Your task to perform on an android device: remove spam from my inbox in the gmail app Image 0: 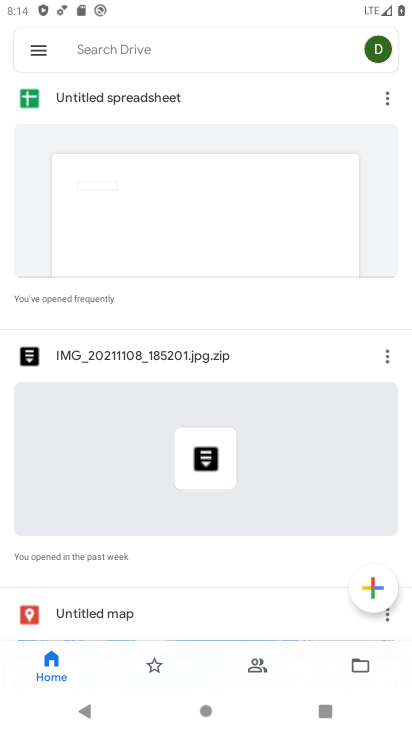
Step 0: press home button
Your task to perform on an android device: remove spam from my inbox in the gmail app Image 1: 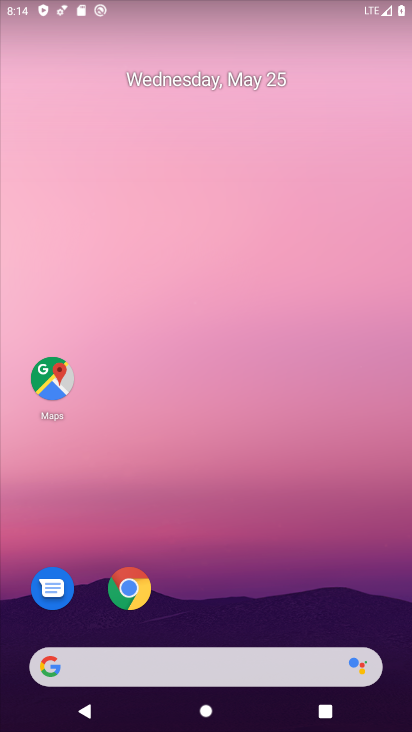
Step 1: drag from (9, 568) to (237, 164)
Your task to perform on an android device: remove spam from my inbox in the gmail app Image 2: 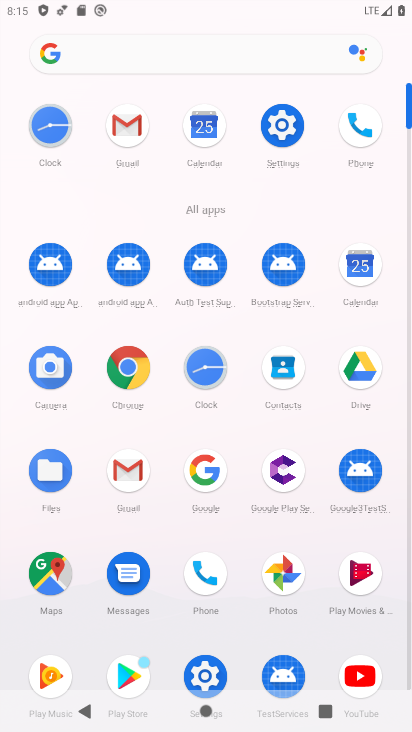
Step 2: click (117, 131)
Your task to perform on an android device: remove spam from my inbox in the gmail app Image 3: 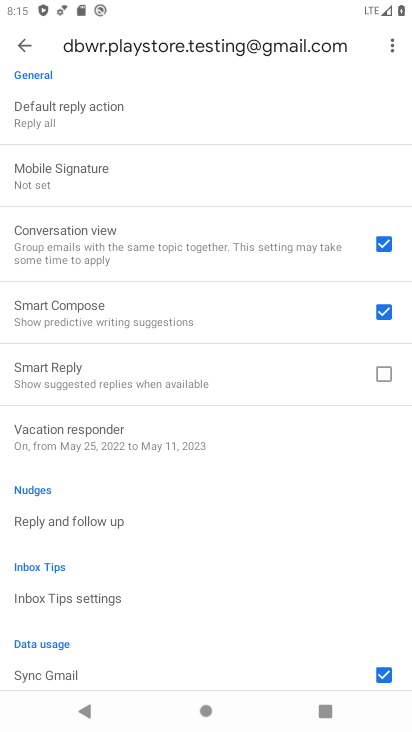
Step 3: press back button
Your task to perform on an android device: remove spam from my inbox in the gmail app Image 4: 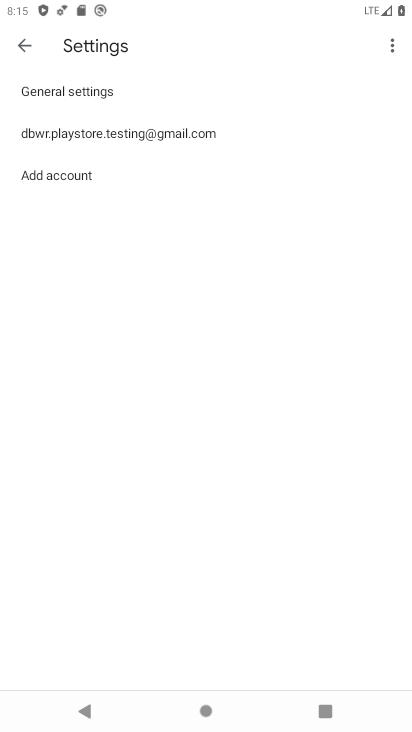
Step 4: press back button
Your task to perform on an android device: remove spam from my inbox in the gmail app Image 5: 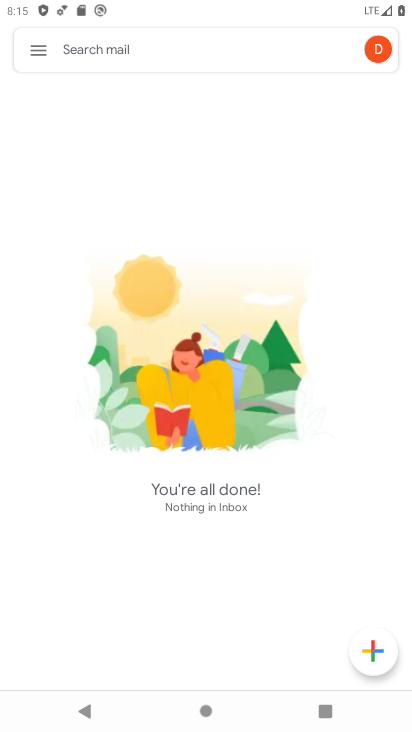
Step 5: click (32, 49)
Your task to perform on an android device: remove spam from my inbox in the gmail app Image 6: 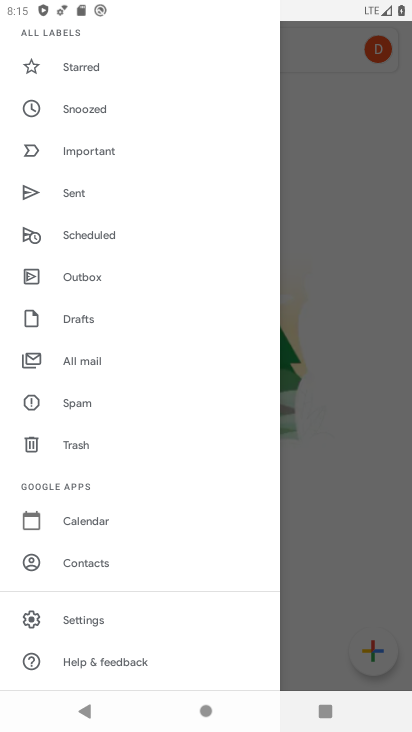
Step 6: click (96, 396)
Your task to perform on an android device: remove spam from my inbox in the gmail app Image 7: 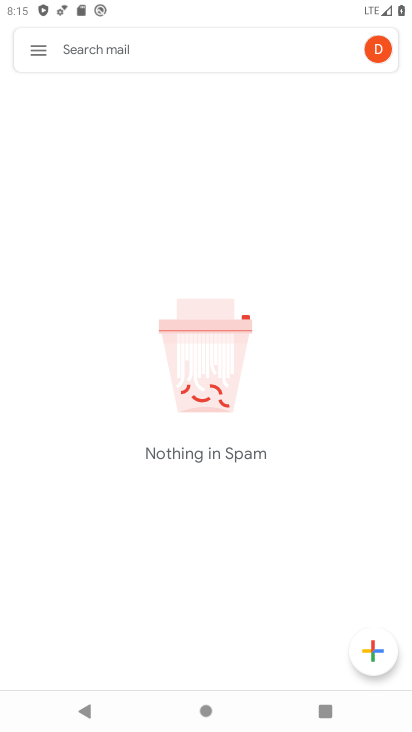
Step 7: task complete